Your task to perform on an android device: What's the price of the Vizio TV? Image 0: 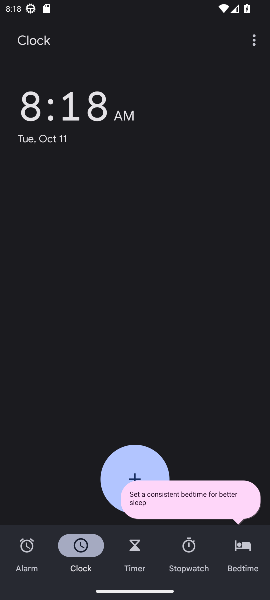
Step 0: press home button
Your task to perform on an android device: What's the price of the Vizio TV? Image 1: 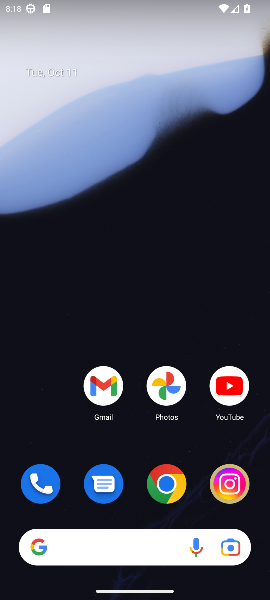
Step 1: click (169, 482)
Your task to perform on an android device: What's the price of the Vizio TV? Image 2: 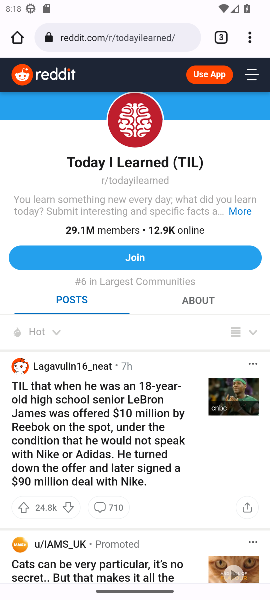
Step 2: click (171, 41)
Your task to perform on an android device: What's the price of the Vizio TV? Image 3: 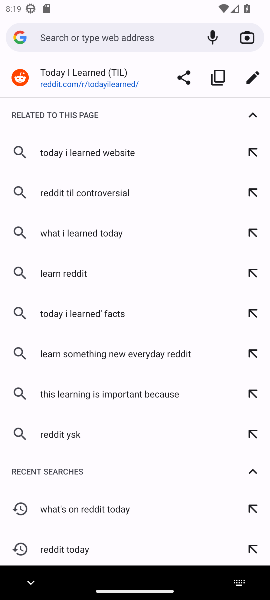
Step 3: type "price of the Vizio TV?"
Your task to perform on an android device: What's the price of the Vizio TV? Image 4: 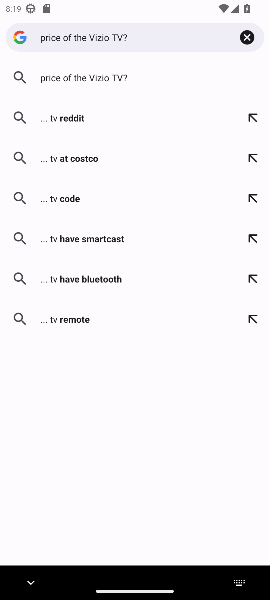
Step 4: click (97, 80)
Your task to perform on an android device: What's the price of the Vizio TV? Image 5: 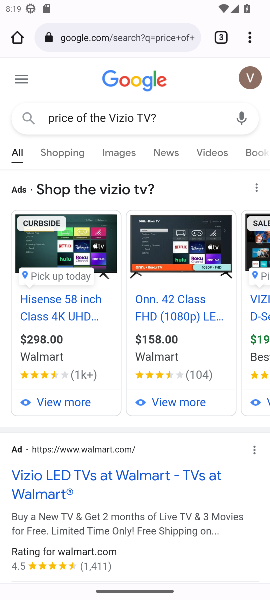
Step 5: task complete